Your task to perform on an android device: see tabs open on other devices in the chrome app Image 0: 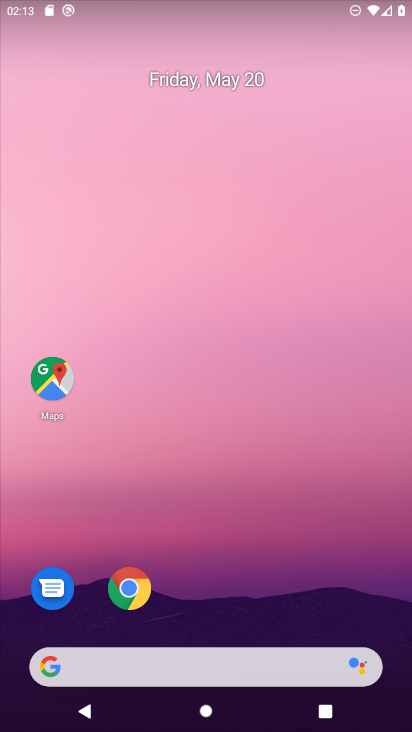
Step 0: click (130, 590)
Your task to perform on an android device: see tabs open on other devices in the chrome app Image 1: 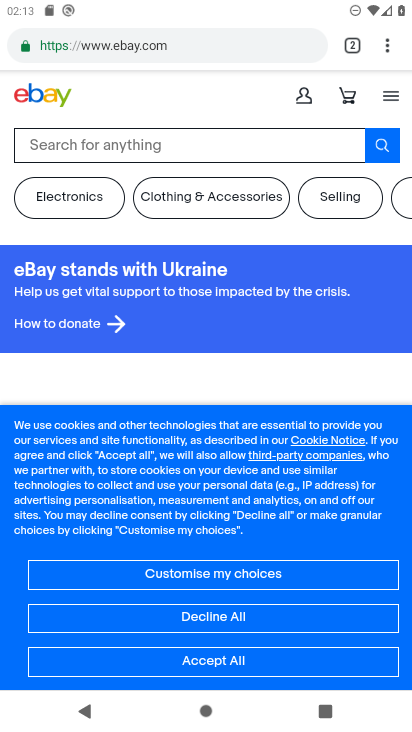
Step 1: click (387, 48)
Your task to perform on an android device: see tabs open on other devices in the chrome app Image 2: 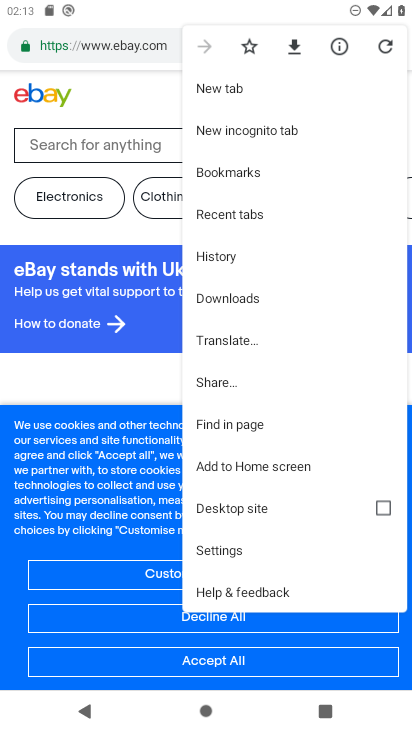
Step 2: click (225, 215)
Your task to perform on an android device: see tabs open on other devices in the chrome app Image 3: 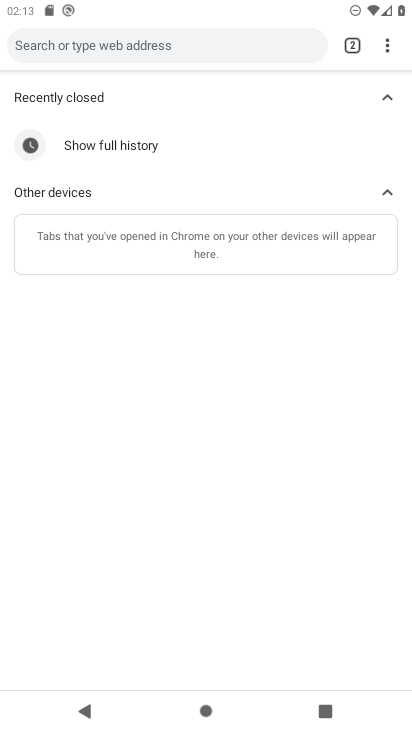
Step 3: task complete